Your task to perform on an android device: Open maps Image 0: 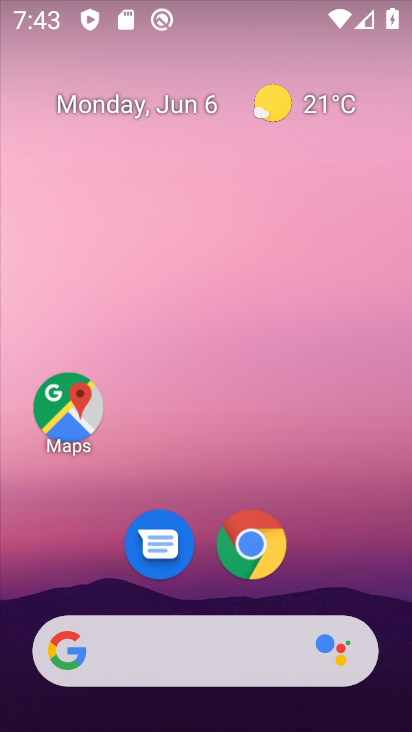
Step 0: click (54, 398)
Your task to perform on an android device: Open maps Image 1: 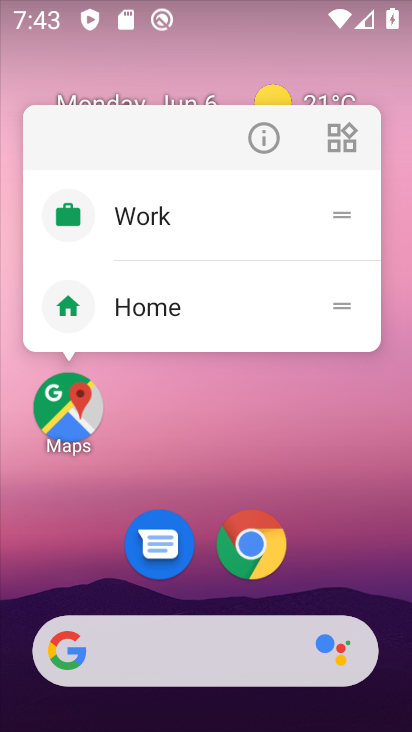
Step 1: click (56, 399)
Your task to perform on an android device: Open maps Image 2: 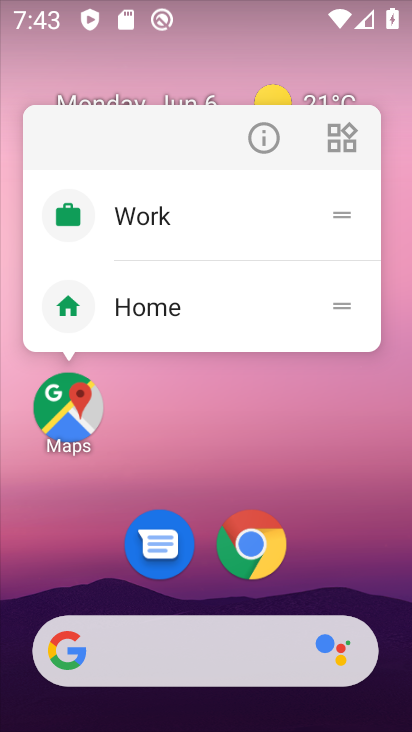
Step 2: click (56, 402)
Your task to perform on an android device: Open maps Image 3: 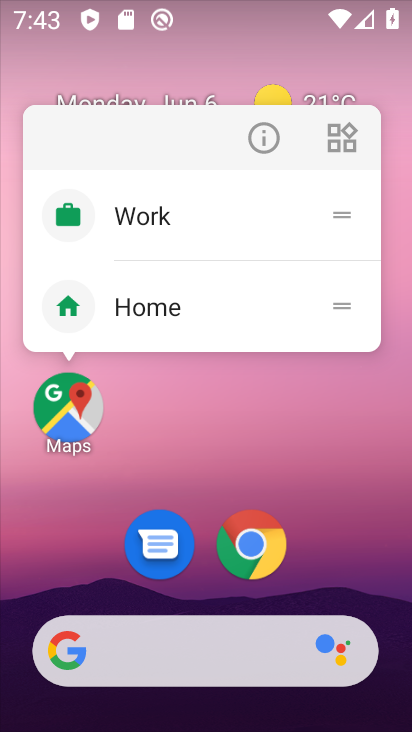
Step 3: click (65, 405)
Your task to perform on an android device: Open maps Image 4: 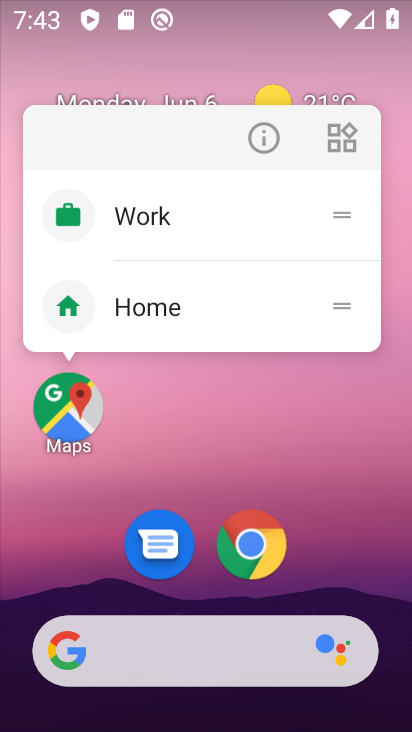
Step 4: click (66, 406)
Your task to perform on an android device: Open maps Image 5: 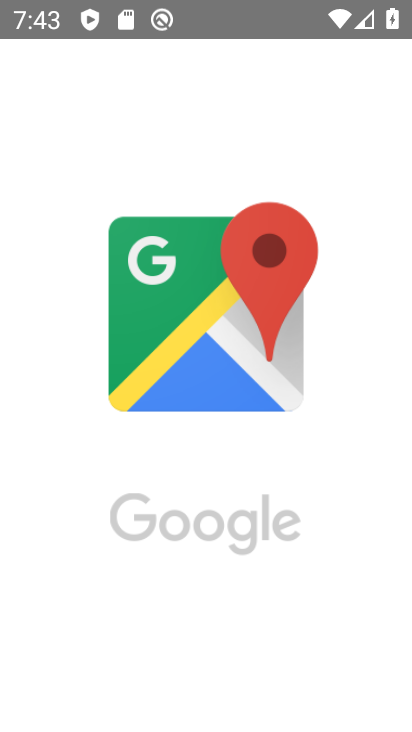
Step 5: click (64, 424)
Your task to perform on an android device: Open maps Image 6: 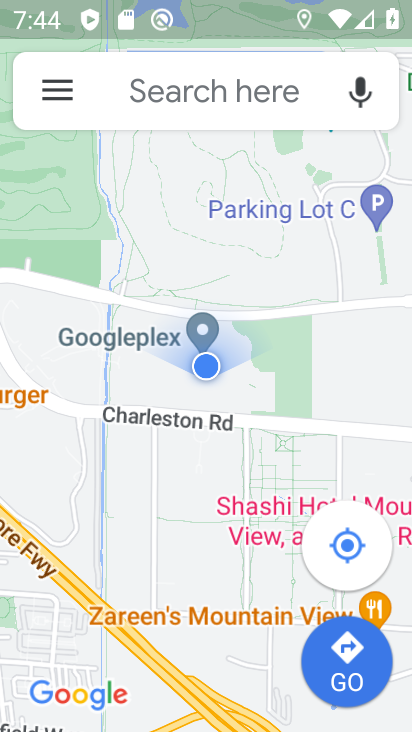
Step 6: task complete